Your task to perform on an android device: set the stopwatch Image 0: 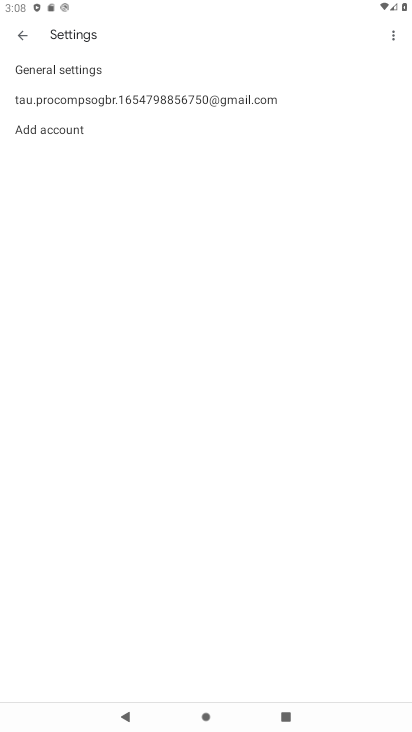
Step 0: click (188, 642)
Your task to perform on an android device: set the stopwatch Image 1: 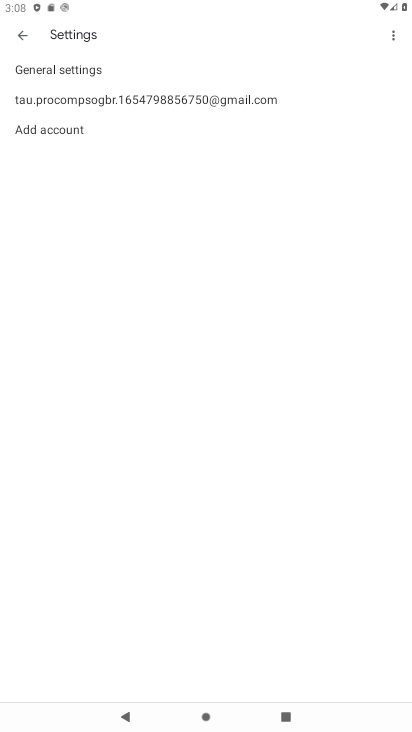
Step 1: press back button
Your task to perform on an android device: set the stopwatch Image 2: 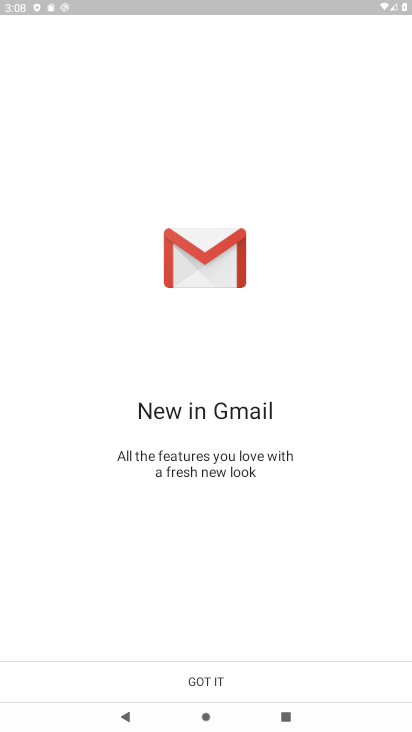
Step 2: press home button
Your task to perform on an android device: set the stopwatch Image 3: 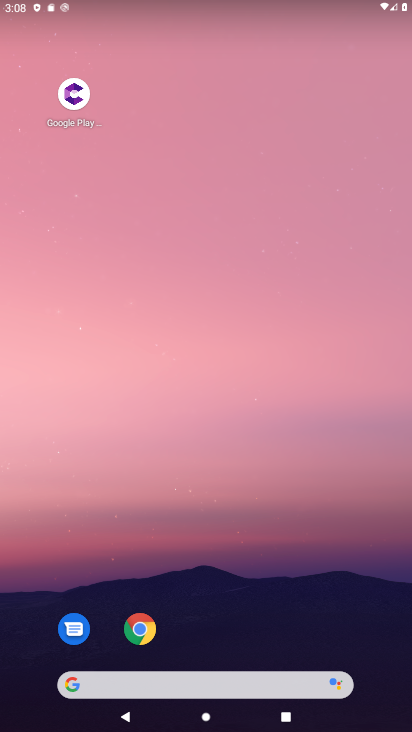
Step 3: drag from (234, 655) to (228, 176)
Your task to perform on an android device: set the stopwatch Image 4: 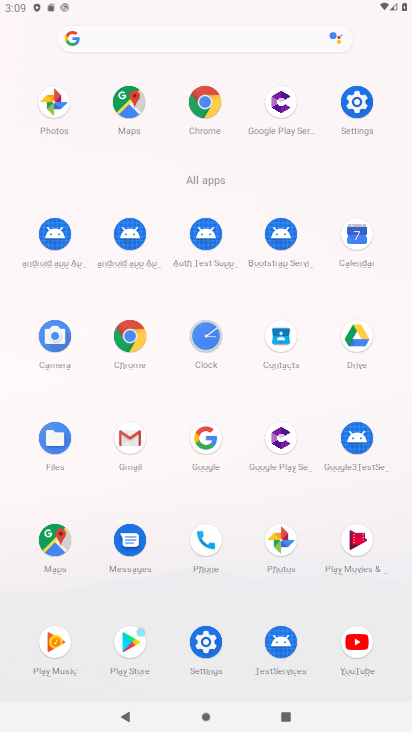
Step 4: click (201, 345)
Your task to perform on an android device: set the stopwatch Image 5: 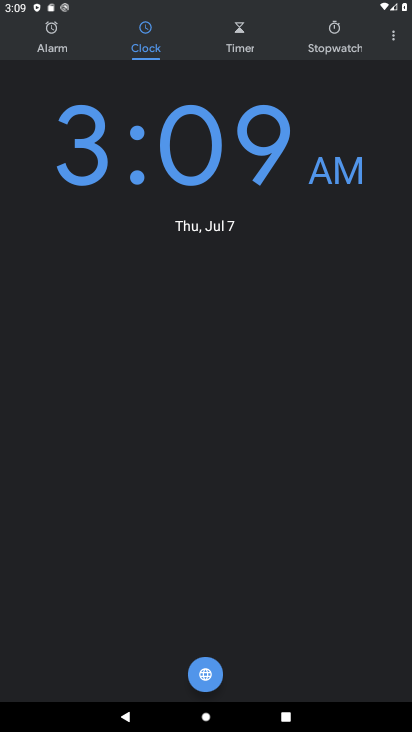
Step 5: click (339, 53)
Your task to perform on an android device: set the stopwatch Image 6: 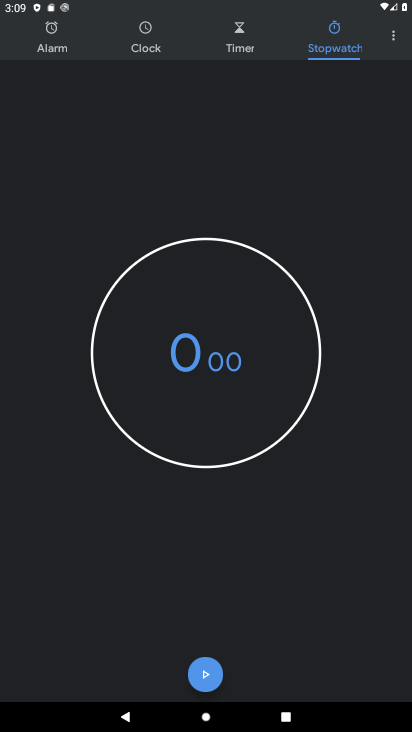
Step 6: click (213, 679)
Your task to perform on an android device: set the stopwatch Image 7: 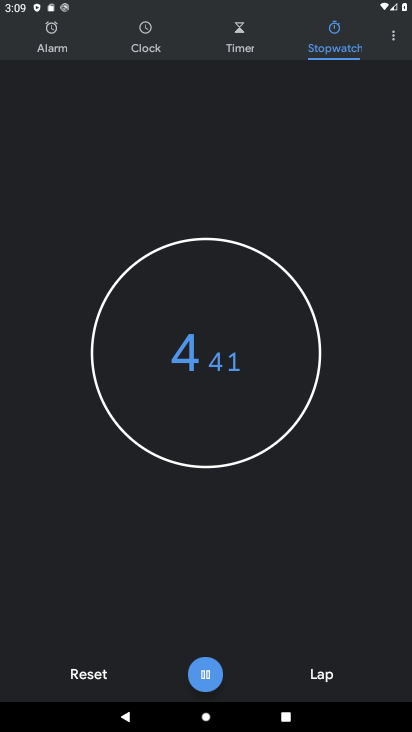
Step 7: click (213, 679)
Your task to perform on an android device: set the stopwatch Image 8: 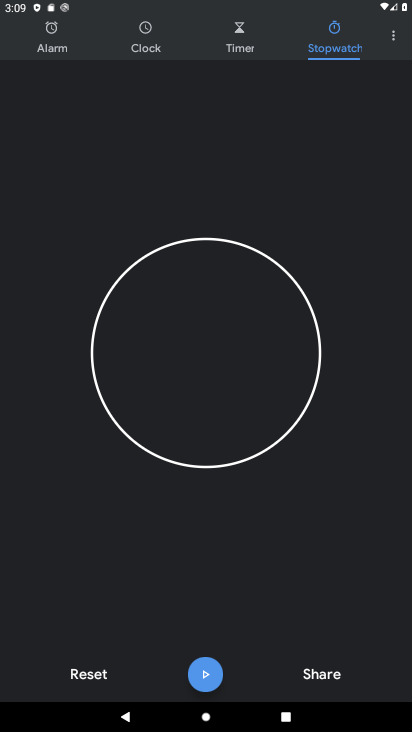
Step 8: task complete